Your task to perform on an android device: toggle airplane mode Image 0: 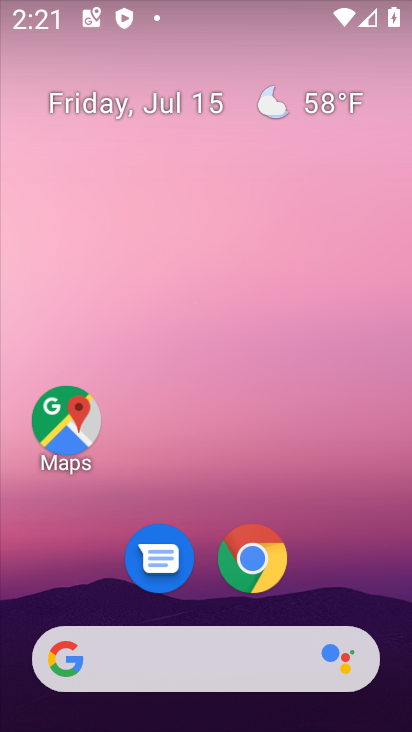
Step 0: drag from (384, 579) to (371, 77)
Your task to perform on an android device: toggle airplane mode Image 1: 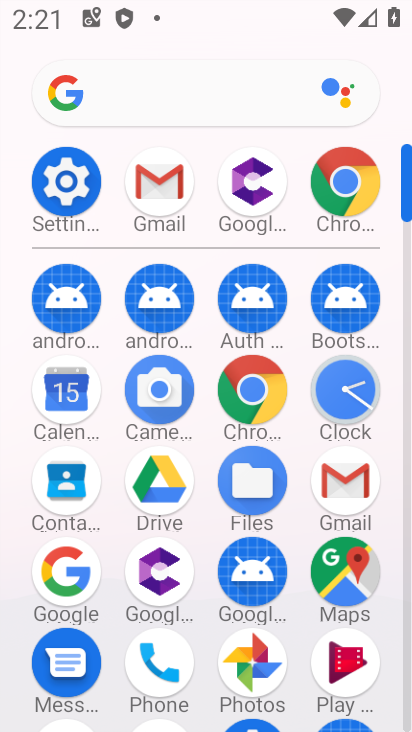
Step 1: click (69, 195)
Your task to perform on an android device: toggle airplane mode Image 2: 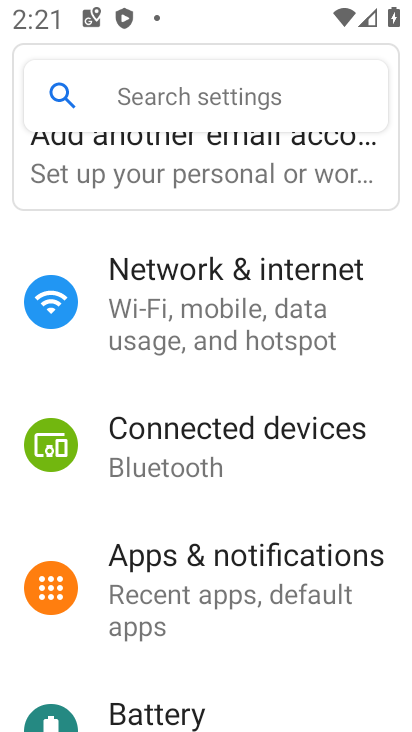
Step 2: drag from (378, 232) to (387, 445)
Your task to perform on an android device: toggle airplane mode Image 3: 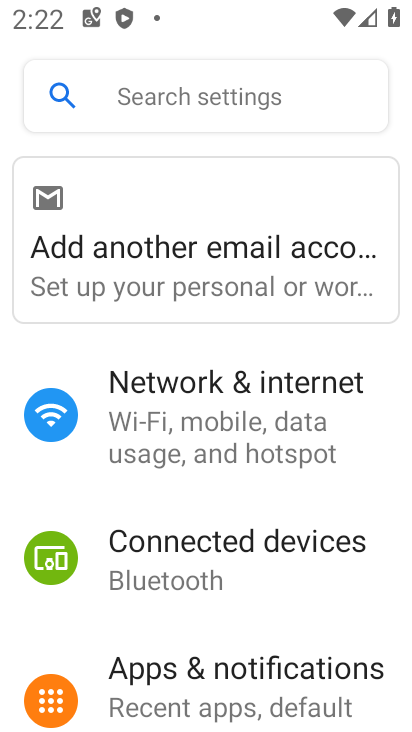
Step 3: drag from (371, 478) to (371, 380)
Your task to perform on an android device: toggle airplane mode Image 4: 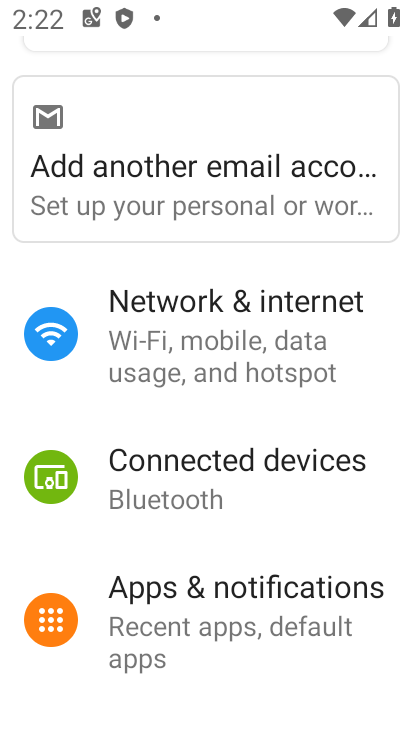
Step 4: drag from (372, 502) to (377, 403)
Your task to perform on an android device: toggle airplane mode Image 5: 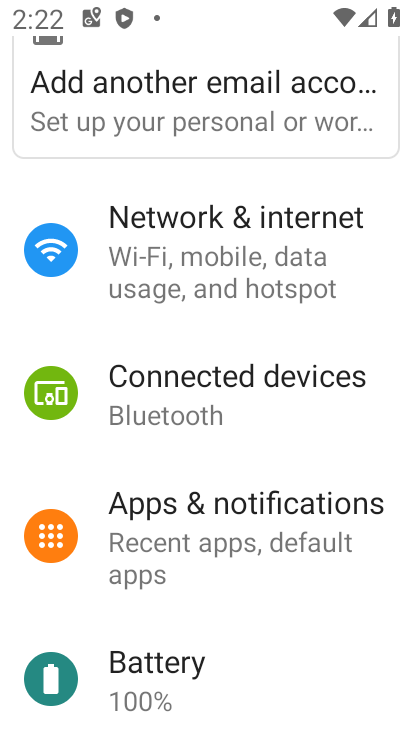
Step 5: drag from (362, 480) to (357, 398)
Your task to perform on an android device: toggle airplane mode Image 6: 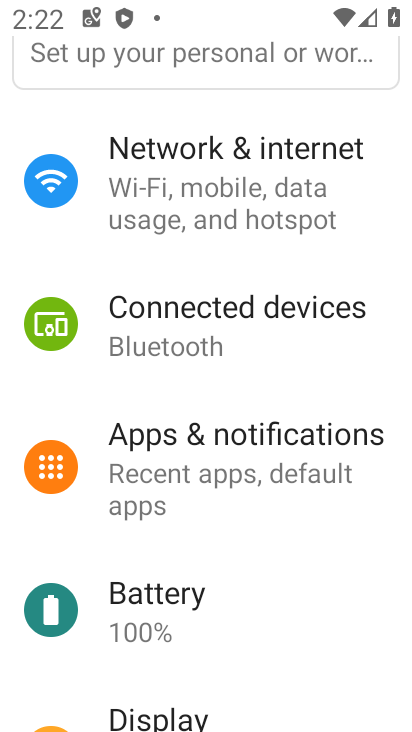
Step 6: click (278, 208)
Your task to perform on an android device: toggle airplane mode Image 7: 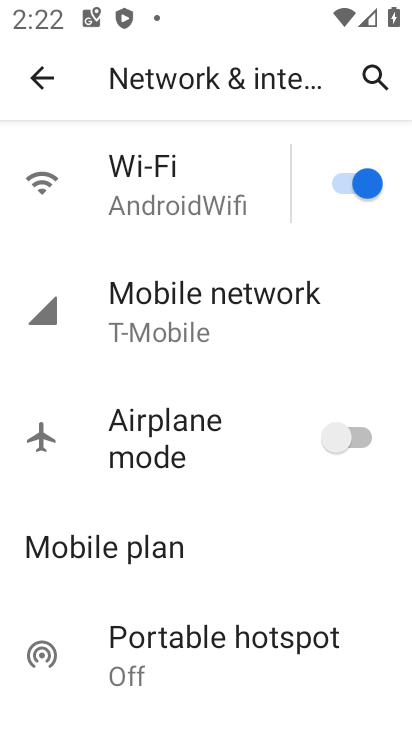
Step 7: click (341, 436)
Your task to perform on an android device: toggle airplane mode Image 8: 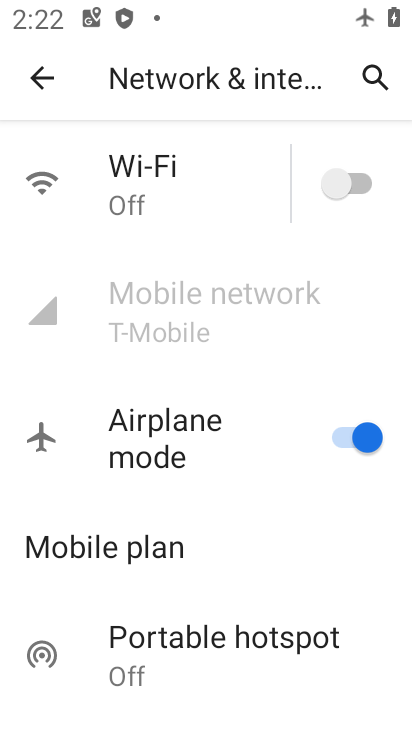
Step 8: task complete